Your task to perform on an android device: Open calendar and show me the third week of next month Image 0: 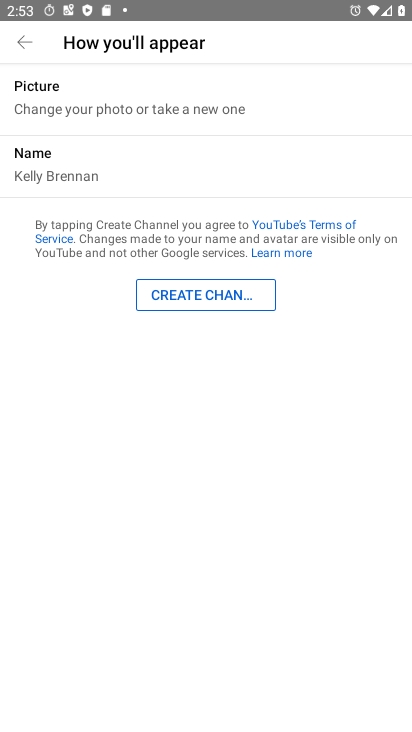
Step 0: press home button
Your task to perform on an android device: Open calendar and show me the third week of next month Image 1: 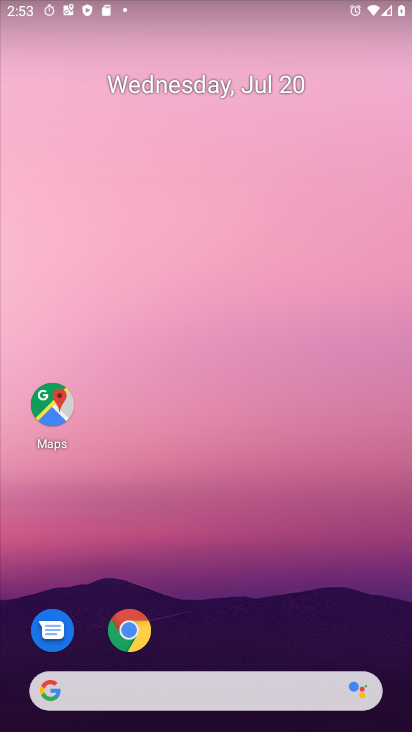
Step 1: drag from (160, 690) to (305, 178)
Your task to perform on an android device: Open calendar and show me the third week of next month Image 2: 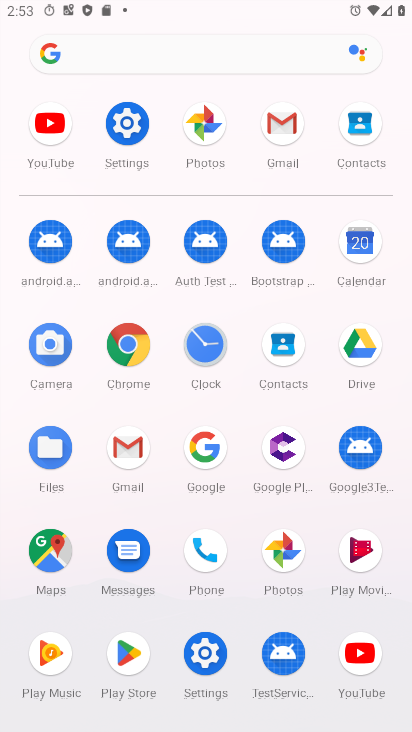
Step 2: click (366, 248)
Your task to perform on an android device: Open calendar and show me the third week of next month Image 3: 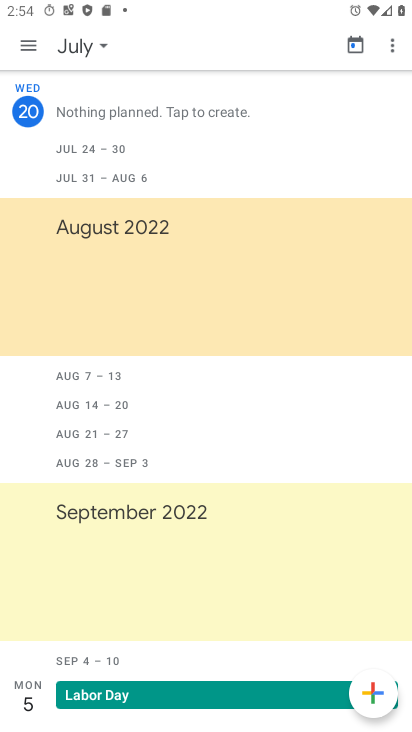
Step 3: click (87, 49)
Your task to perform on an android device: Open calendar and show me the third week of next month Image 4: 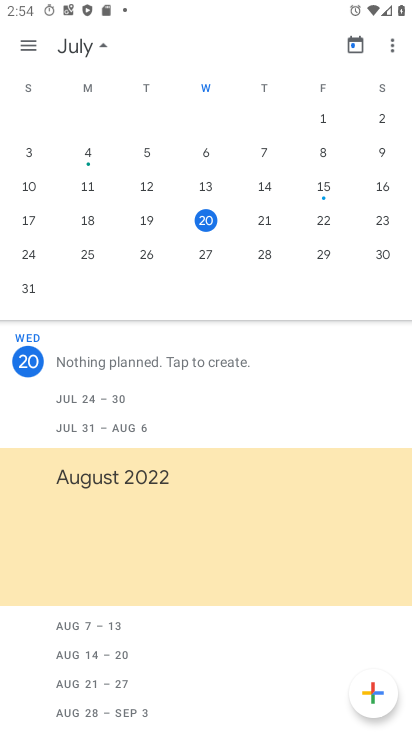
Step 4: drag from (352, 187) to (42, 175)
Your task to perform on an android device: Open calendar and show me the third week of next month Image 5: 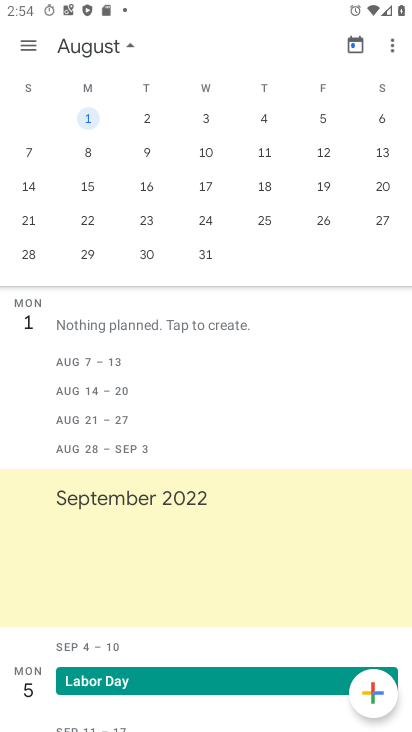
Step 5: click (34, 188)
Your task to perform on an android device: Open calendar and show me the third week of next month Image 6: 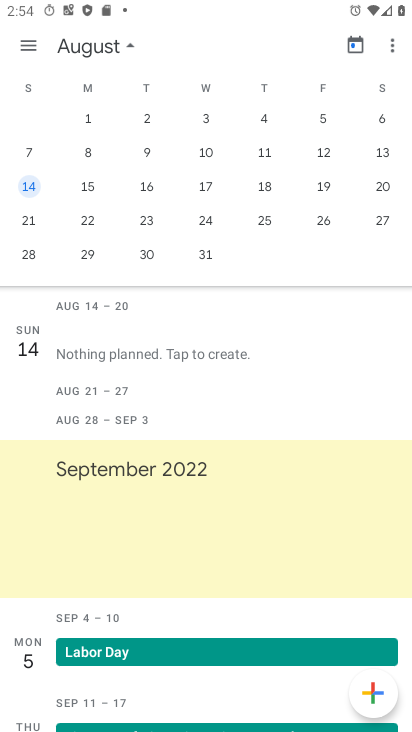
Step 6: click (32, 40)
Your task to perform on an android device: Open calendar and show me the third week of next month Image 7: 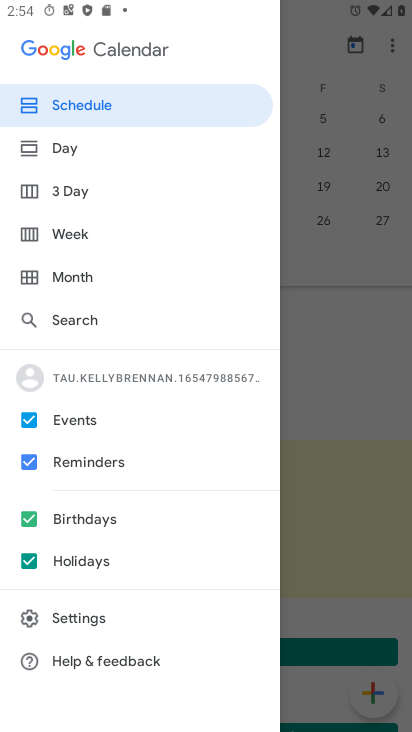
Step 7: click (67, 239)
Your task to perform on an android device: Open calendar and show me the third week of next month Image 8: 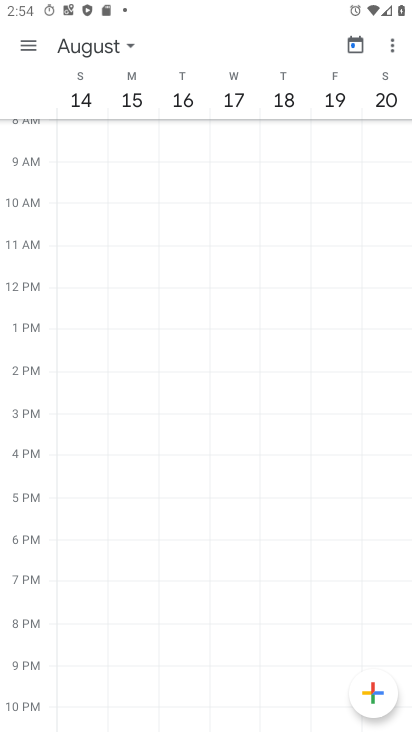
Step 8: task complete